Your task to perform on an android device: Show me the alarms in the clock app Image 0: 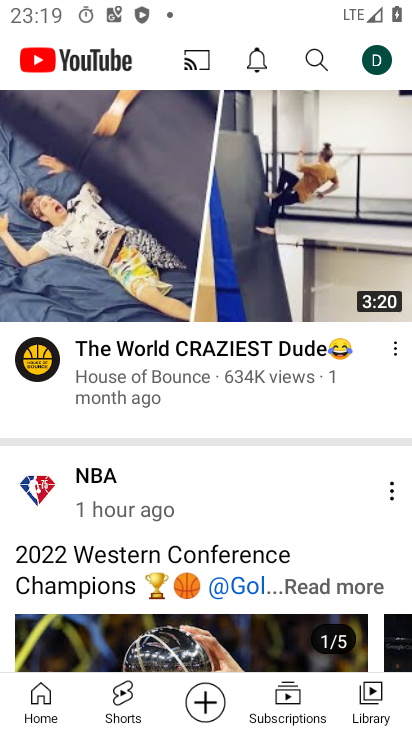
Step 0: press home button
Your task to perform on an android device: Show me the alarms in the clock app Image 1: 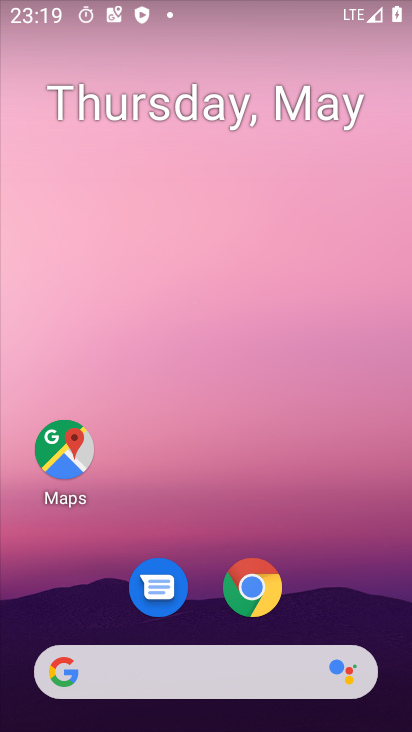
Step 1: drag from (348, 590) to (367, 30)
Your task to perform on an android device: Show me the alarms in the clock app Image 2: 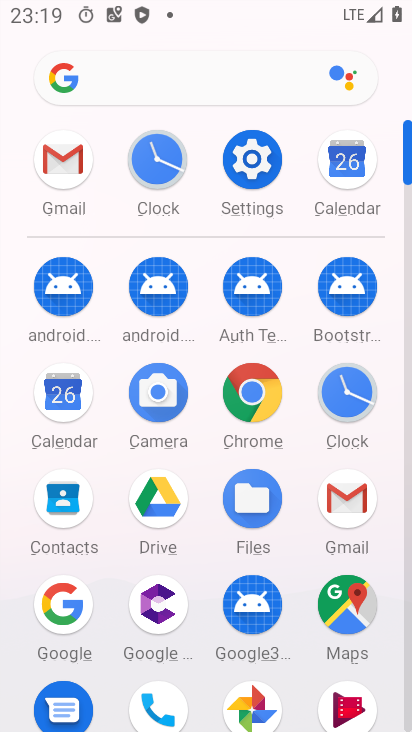
Step 2: click (166, 188)
Your task to perform on an android device: Show me the alarms in the clock app Image 3: 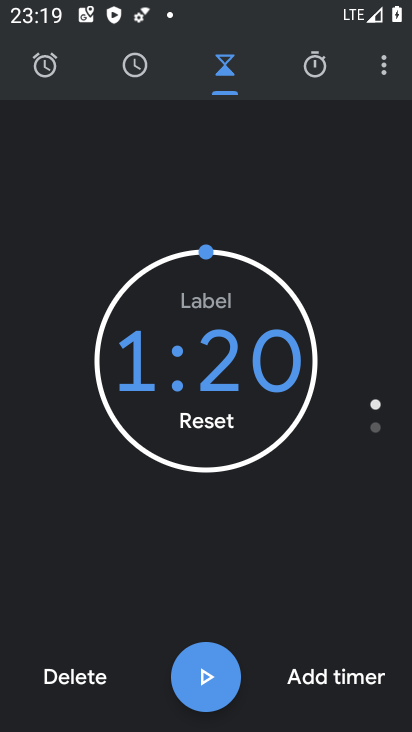
Step 3: click (52, 68)
Your task to perform on an android device: Show me the alarms in the clock app Image 4: 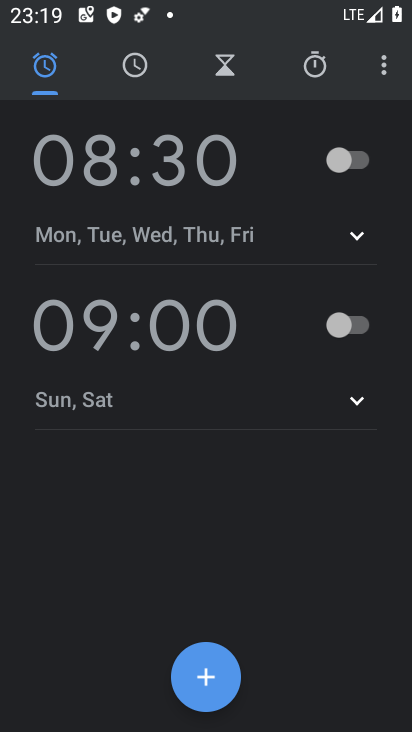
Step 4: task complete